Your task to perform on an android device: snooze an email in the gmail app Image 0: 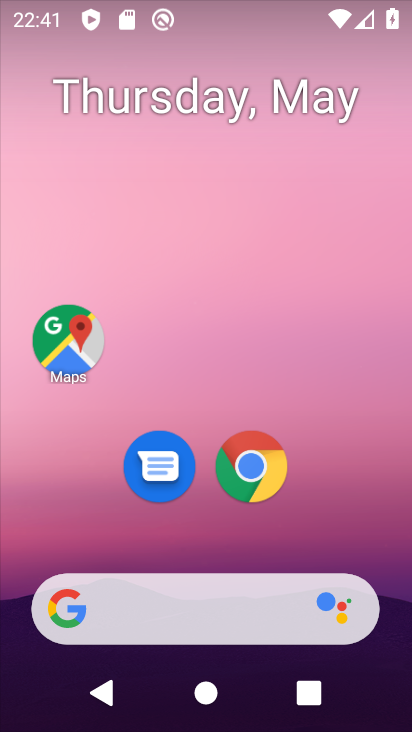
Step 0: drag from (320, 452) to (303, 2)
Your task to perform on an android device: snooze an email in the gmail app Image 1: 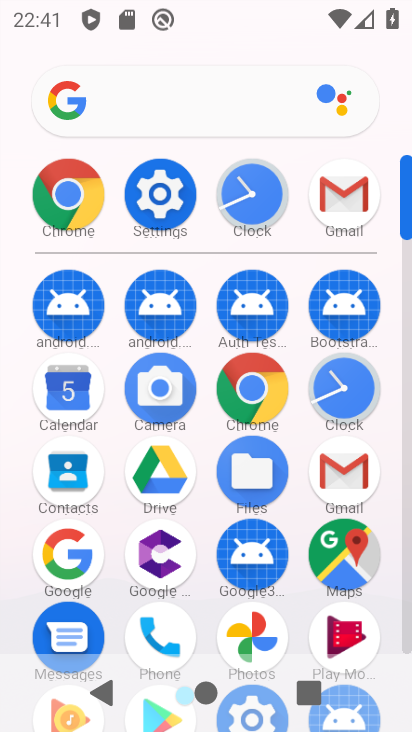
Step 1: click (345, 201)
Your task to perform on an android device: snooze an email in the gmail app Image 2: 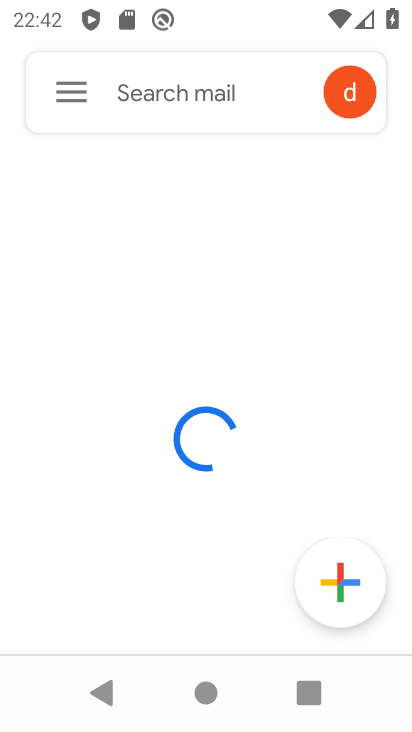
Step 2: click (67, 86)
Your task to perform on an android device: snooze an email in the gmail app Image 3: 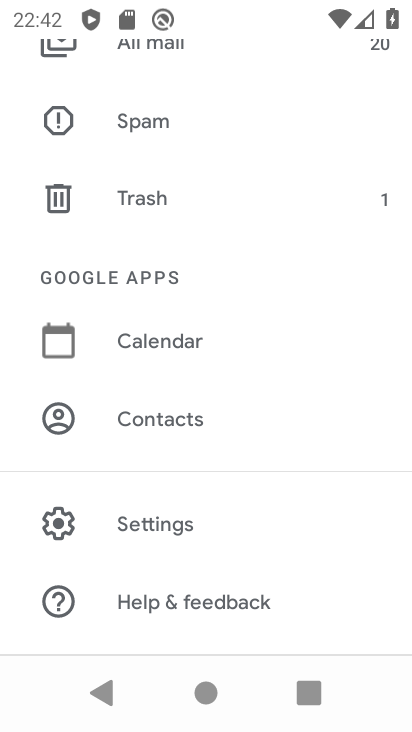
Step 3: click (172, 51)
Your task to perform on an android device: snooze an email in the gmail app Image 4: 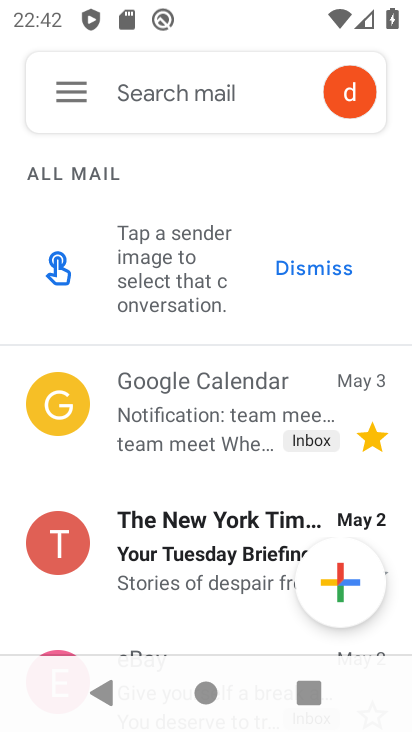
Step 4: click (218, 406)
Your task to perform on an android device: snooze an email in the gmail app Image 5: 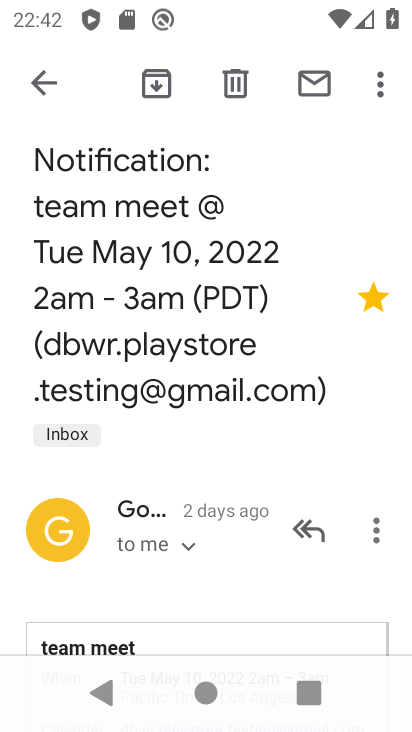
Step 5: click (385, 69)
Your task to perform on an android device: snooze an email in the gmail app Image 6: 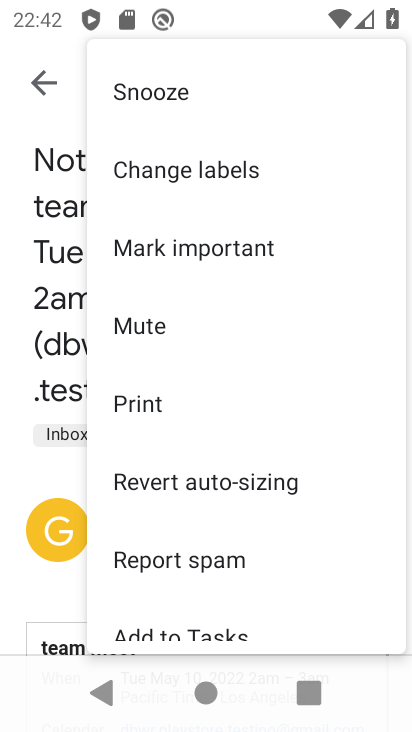
Step 6: click (192, 92)
Your task to perform on an android device: snooze an email in the gmail app Image 7: 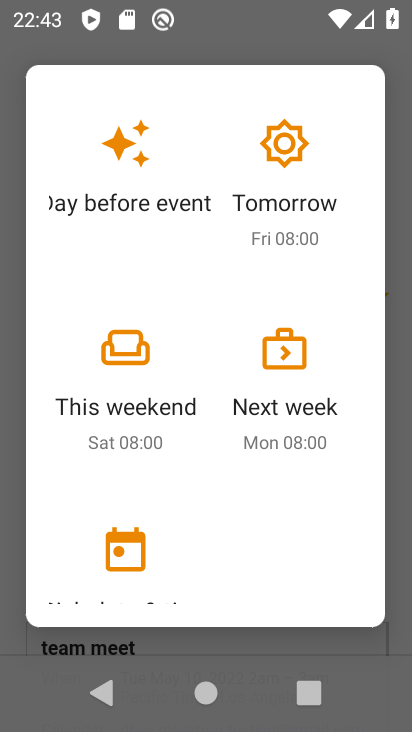
Step 7: press home button
Your task to perform on an android device: snooze an email in the gmail app Image 8: 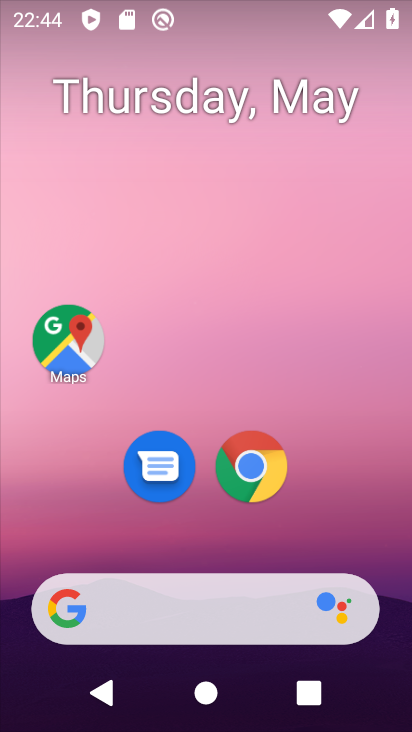
Step 8: drag from (332, 502) to (303, 48)
Your task to perform on an android device: snooze an email in the gmail app Image 9: 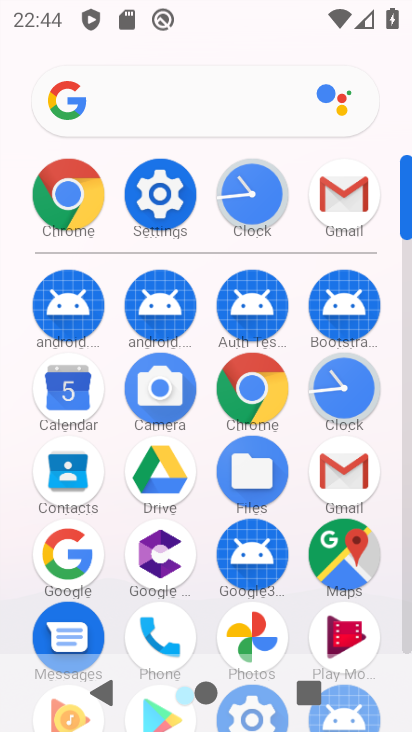
Step 9: click (347, 185)
Your task to perform on an android device: snooze an email in the gmail app Image 10: 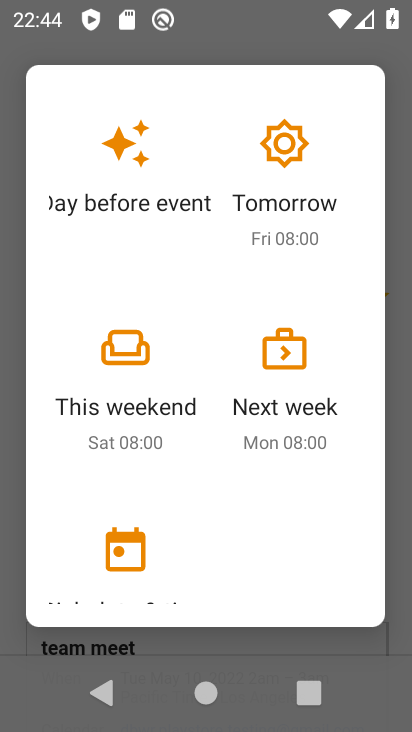
Step 10: click (140, 165)
Your task to perform on an android device: snooze an email in the gmail app Image 11: 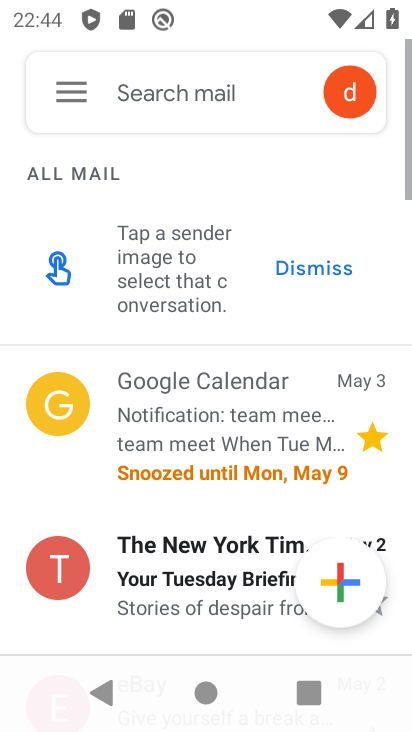
Step 11: task complete